Your task to perform on an android device: toggle pop-ups in chrome Image 0: 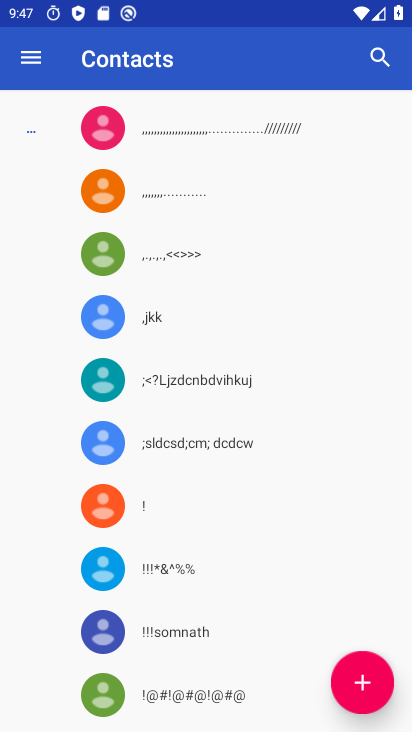
Step 0: press home button
Your task to perform on an android device: toggle pop-ups in chrome Image 1: 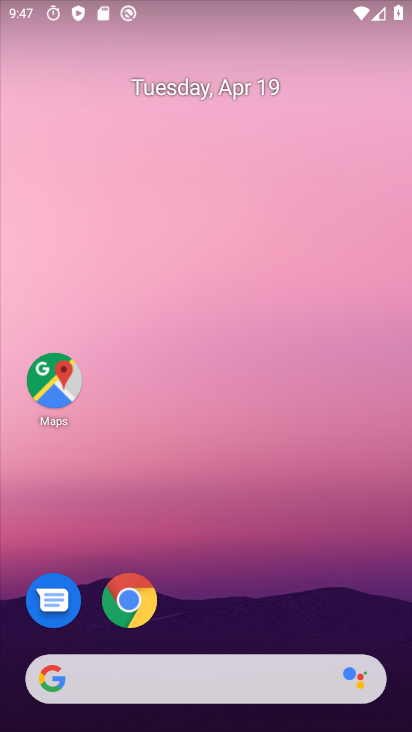
Step 1: drag from (373, 598) to (315, 187)
Your task to perform on an android device: toggle pop-ups in chrome Image 2: 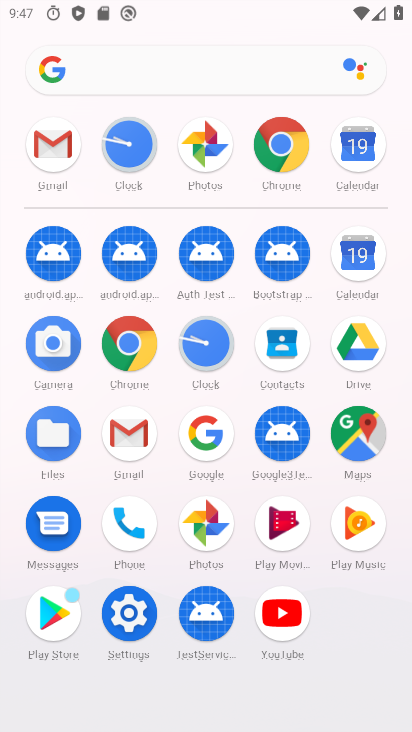
Step 2: click (295, 168)
Your task to perform on an android device: toggle pop-ups in chrome Image 3: 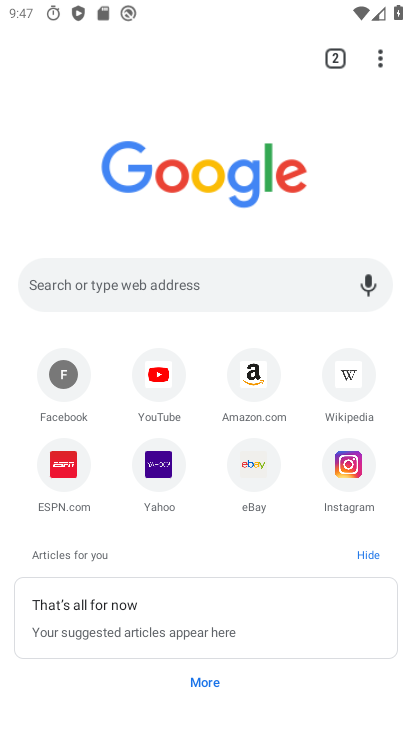
Step 3: click (374, 52)
Your task to perform on an android device: toggle pop-ups in chrome Image 4: 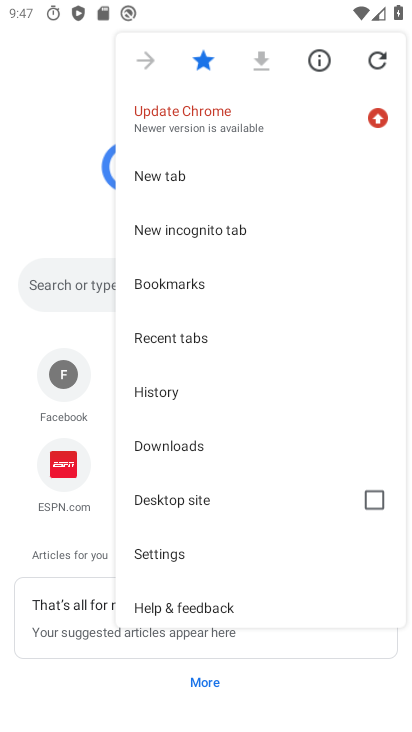
Step 4: click (209, 553)
Your task to perform on an android device: toggle pop-ups in chrome Image 5: 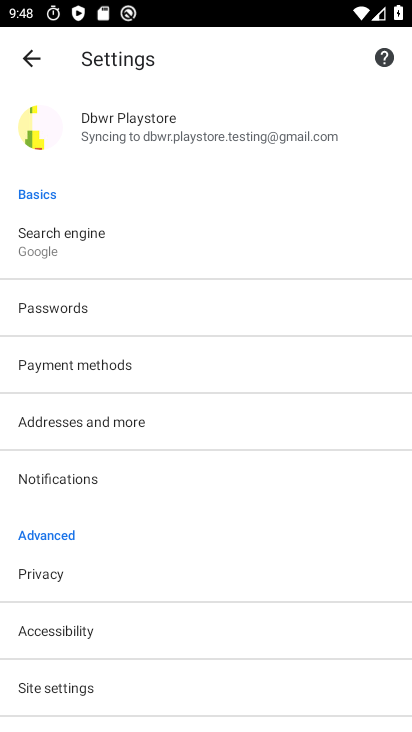
Step 5: drag from (177, 598) to (179, 228)
Your task to perform on an android device: toggle pop-ups in chrome Image 6: 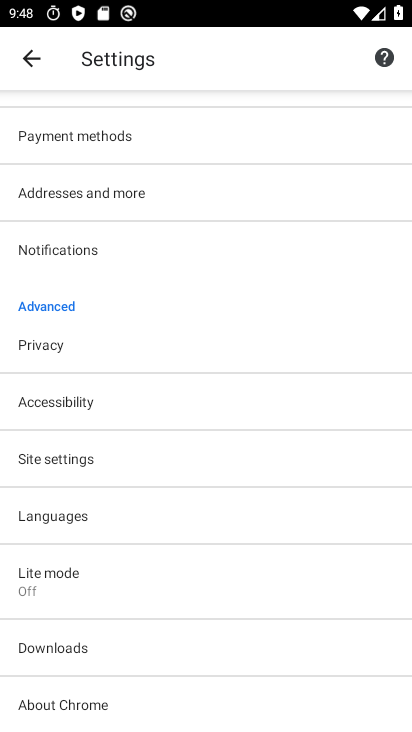
Step 6: click (178, 454)
Your task to perform on an android device: toggle pop-ups in chrome Image 7: 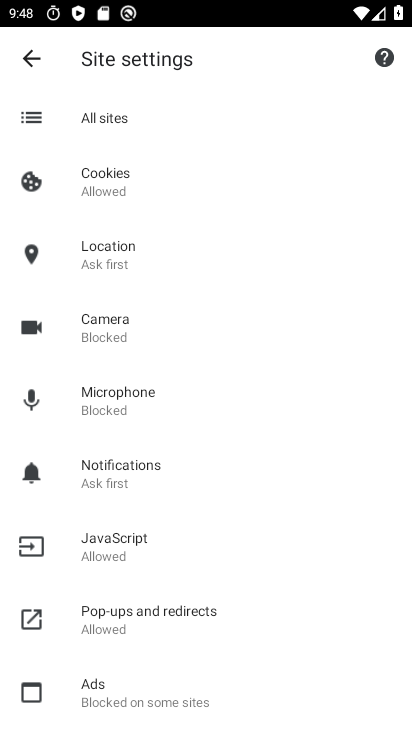
Step 7: click (228, 627)
Your task to perform on an android device: toggle pop-ups in chrome Image 8: 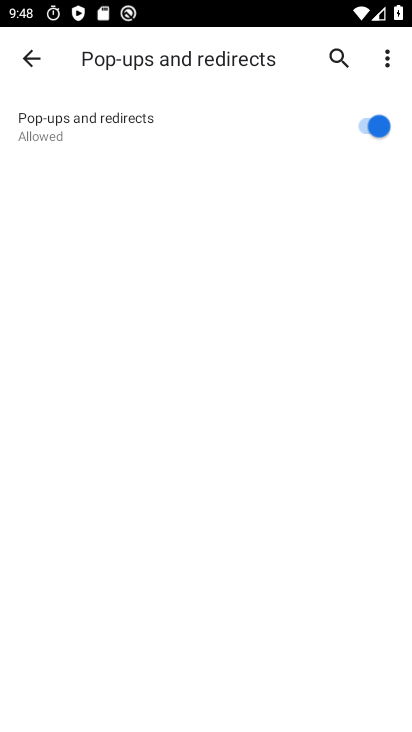
Step 8: click (382, 121)
Your task to perform on an android device: toggle pop-ups in chrome Image 9: 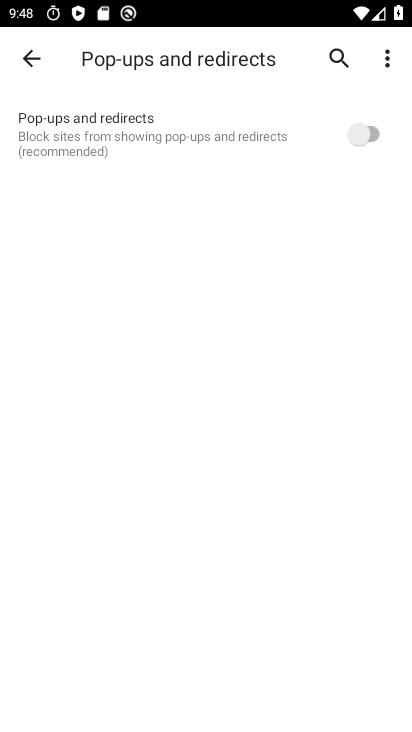
Step 9: task complete